Your task to perform on an android device: Open sound settings Image 0: 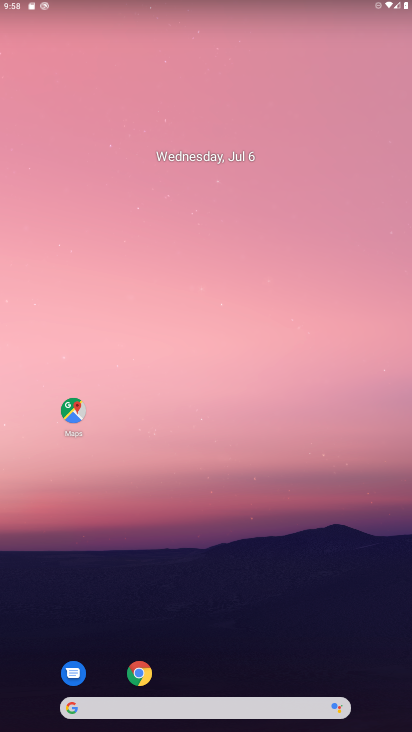
Step 0: drag from (217, 675) to (227, 60)
Your task to perform on an android device: Open sound settings Image 1: 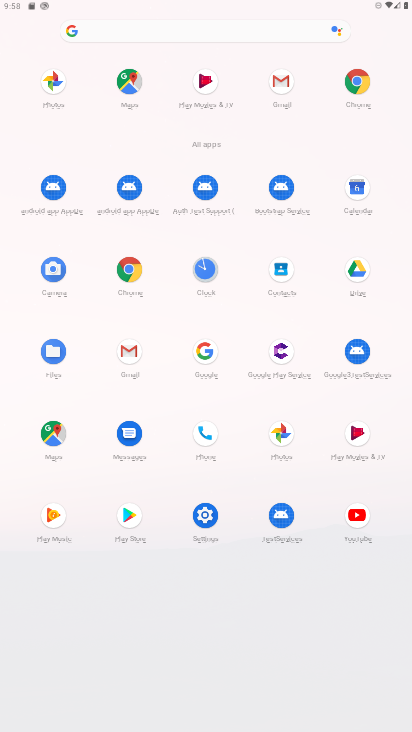
Step 1: click (207, 528)
Your task to perform on an android device: Open sound settings Image 2: 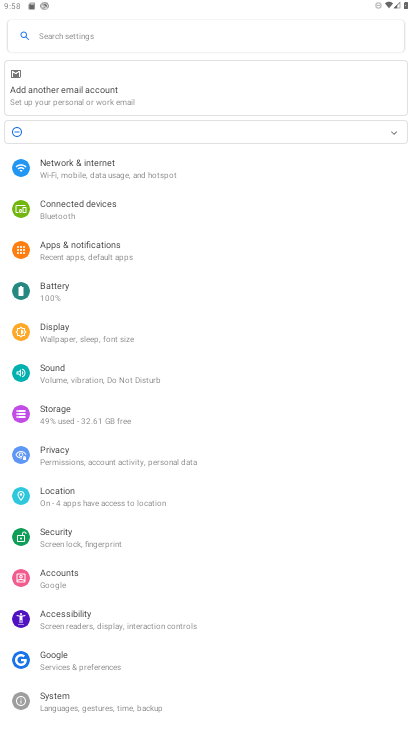
Step 2: click (129, 378)
Your task to perform on an android device: Open sound settings Image 3: 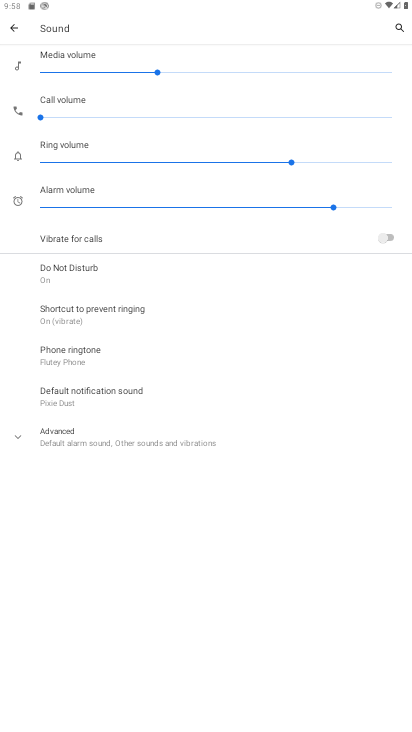
Step 3: task complete